Your task to perform on an android device: turn on bluetooth scan Image 0: 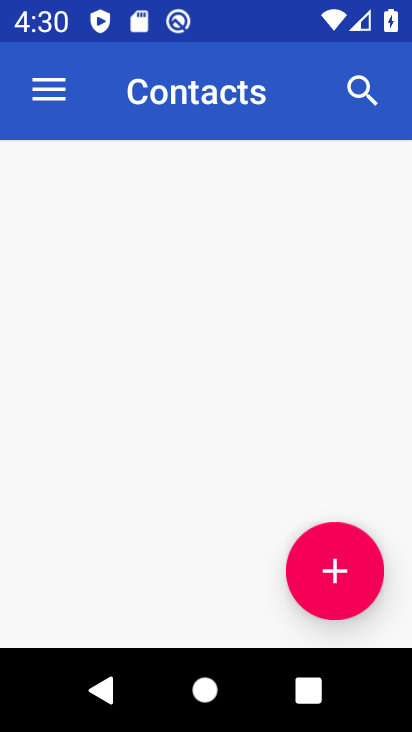
Step 0: press home button
Your task to perform on an android device: turn on bluetooth scan Image 1: 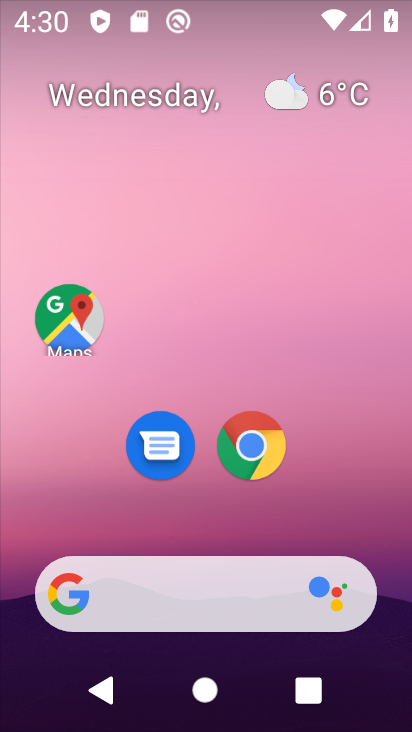
Step 1: drag from (366, 487) to (352, 44)
Your task to perform on an android device: turn on bluetooth scan Image 2: 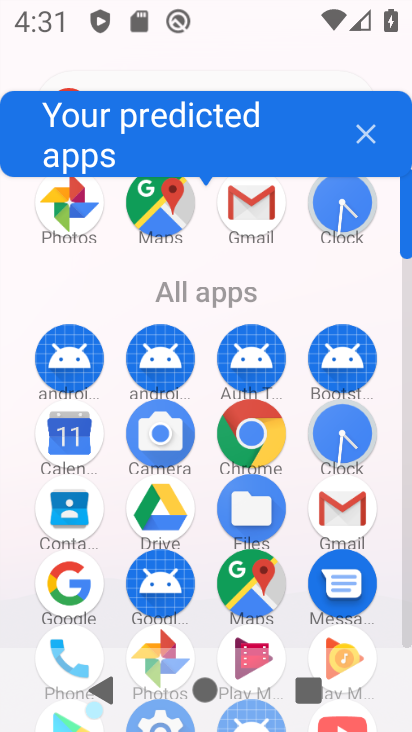
Step 2: drag from (400, 582) to (403, 217)
Your task to perform on an android device: turn on bluetooth scan Image 3: 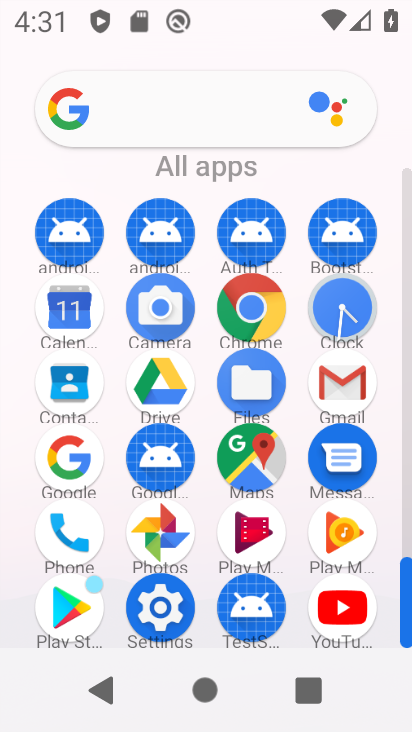
Step 3: click (151, 610)
Your task to perform on an android device: turn on bluetooth scan Image 4: 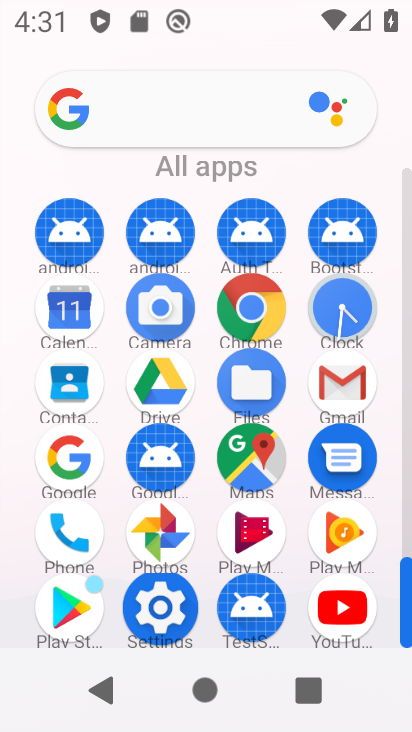
Step 4: click (150, 598)
Your task to perform on an android device: turn on bluetooth scan Image 5: 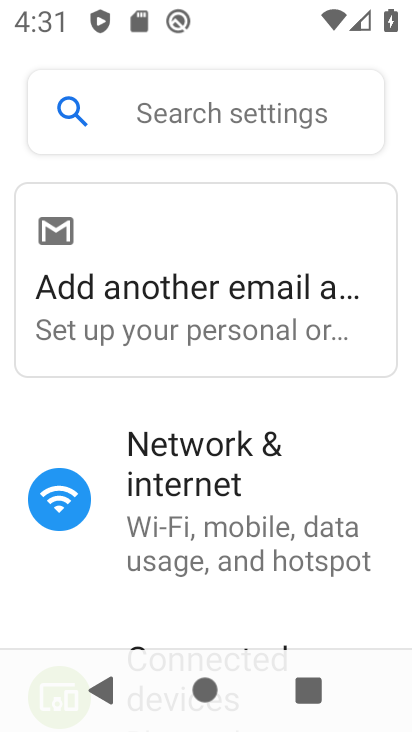
Step 5: drag from (176, 541) to (197, 134)
Your task to perform on an android device: turn on bluetooth scan Image 6: 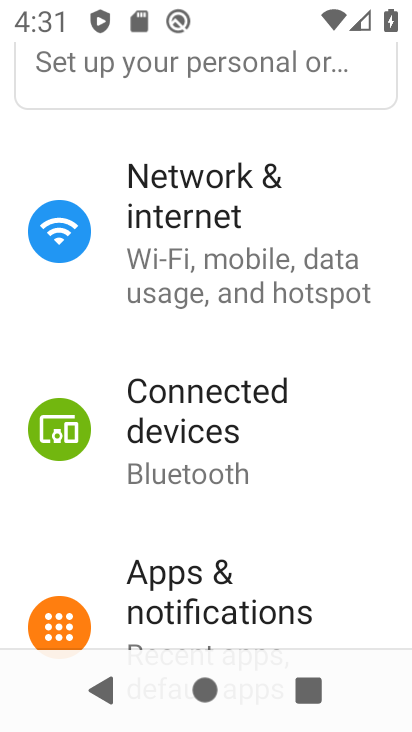
Step 6: drag from (247, 581) to (274, 168)
Your task to perform on an android device: turn on bluetooth scan Image 7: 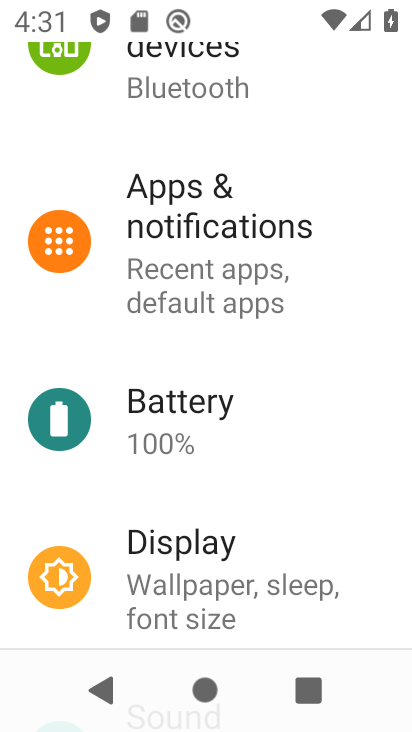
Step 7: drag from (256, 582) to (304, 207)
Your task to perform on an android device: turn on bluetooth scan Image 8: 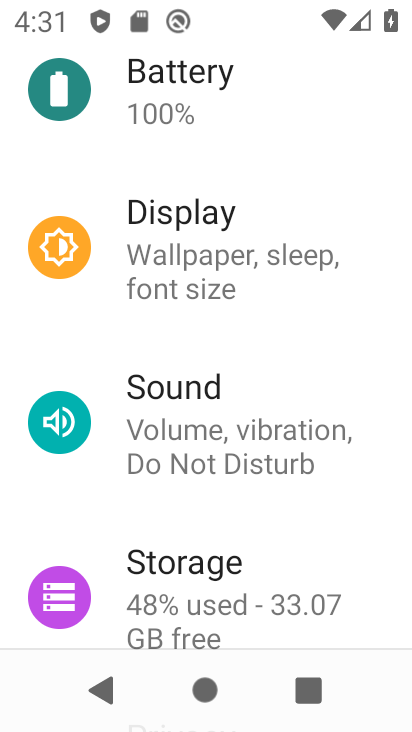
Step 8: drag from (291, 455) to (295, 89)
Your task to perform on an android device: turn on bluetooth scan Image 9: 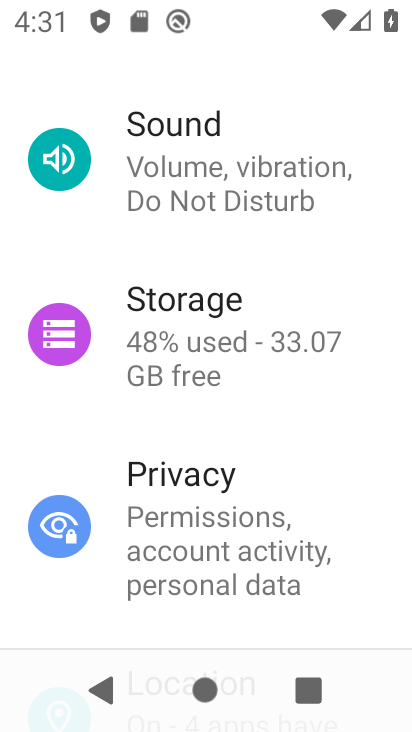
Step 9: drag from (231, 572) to (287, 94)
Your task to perform on an android device: turn on bluetooth scan Image 10: 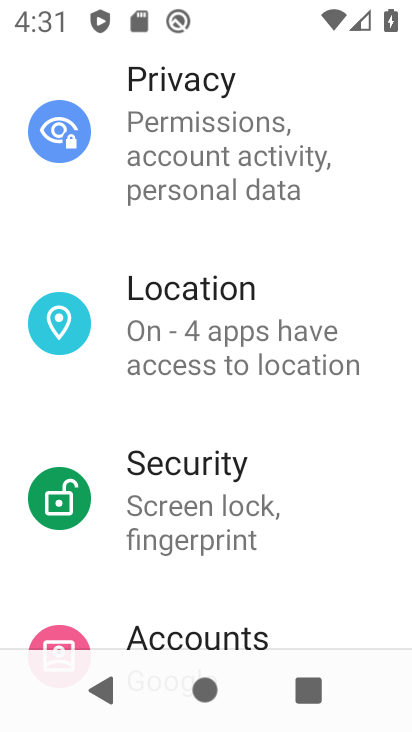
Step 10: click (225, 312)
Your task to perform on an android device: turn on bluetooth scan Image 11: 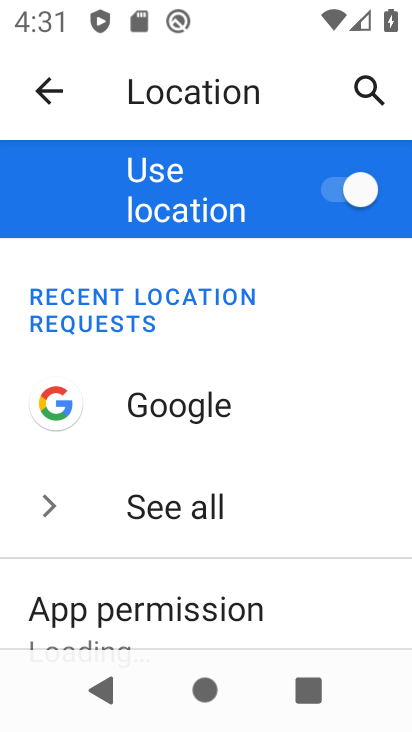
Step 11: drag from (206, 581) to (183, 219)
Your task to perform on an android device: turn on bluetooth scan Image 12: 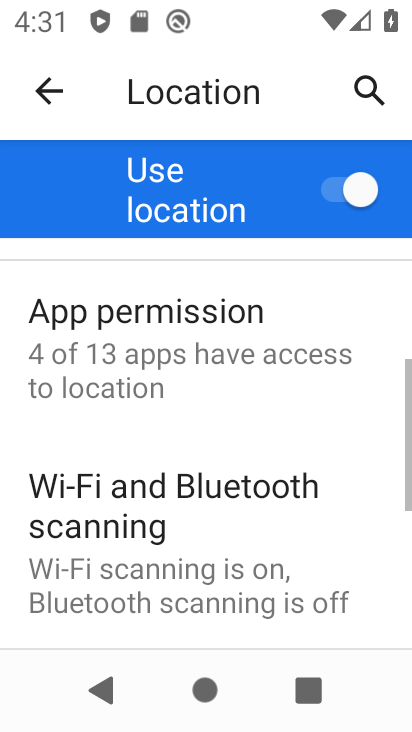
Step 12: drag from (244, 566) to (327, 253)
Your task to perform on an android device: turn on bluetooth scan Image 13: 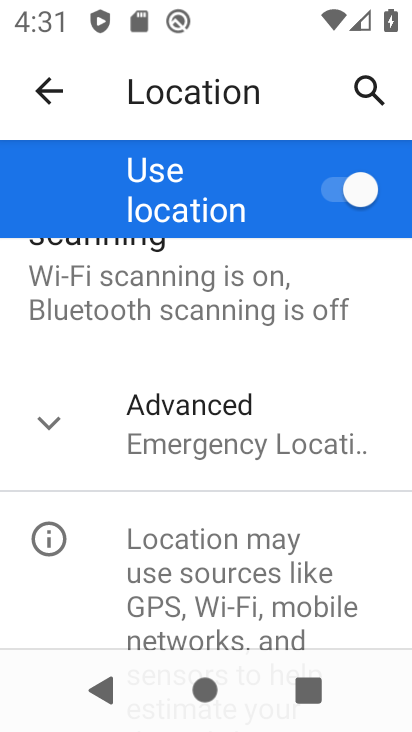
Step 13: drag from (290, 549) to (366, 216)
Your task to perform on an android device: turn on bluetooth scan Image 14: 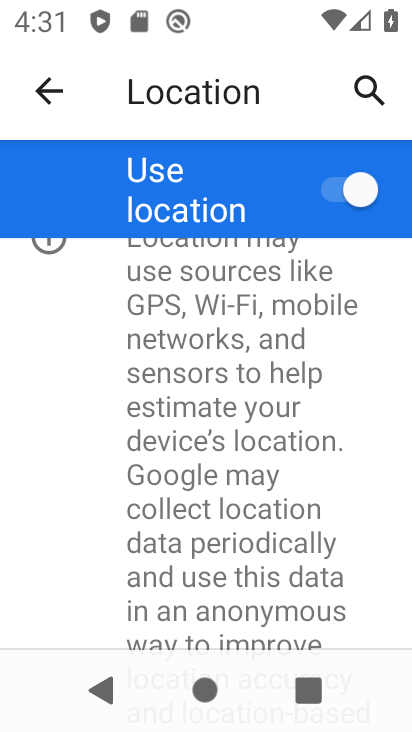
Step 14: drag from (366, 222) to (266, 688)
Your task to perform on an android device: turn on bluetooth scan Image 15: 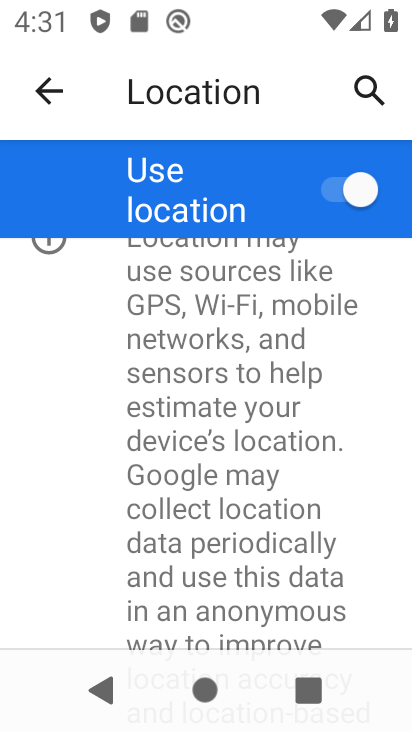
Step 15: drag from (317, 307) to (245, 642)
Your task to perform on an android device: turn on bluetooth scan Image 16: 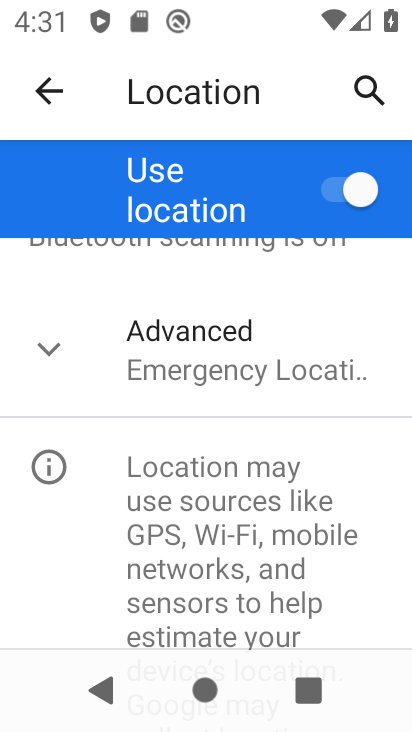
Step 16: drag from (280, 249) to (233, 607)
Your task to perform on an android device: turn on bluetooth scan Image 17: 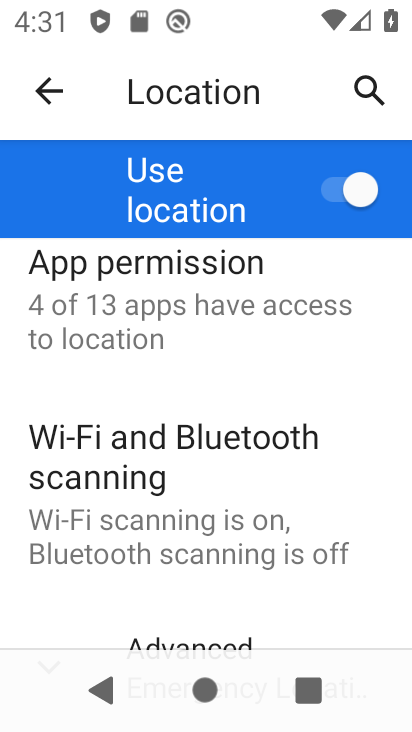
Step 17: click (209, 445)
Your task to perform on an android device: turn on bluetooth scan Image 18: 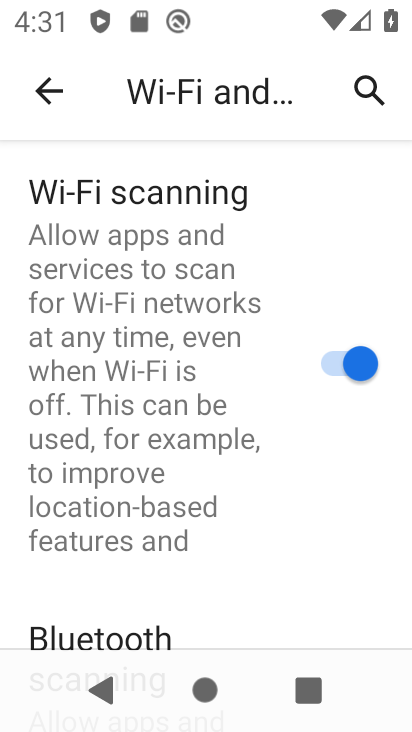
Step 18: drag from (209, 557) to (239, 117)
Your task to perform on an android device: turn on bluetooth scan Image 19: 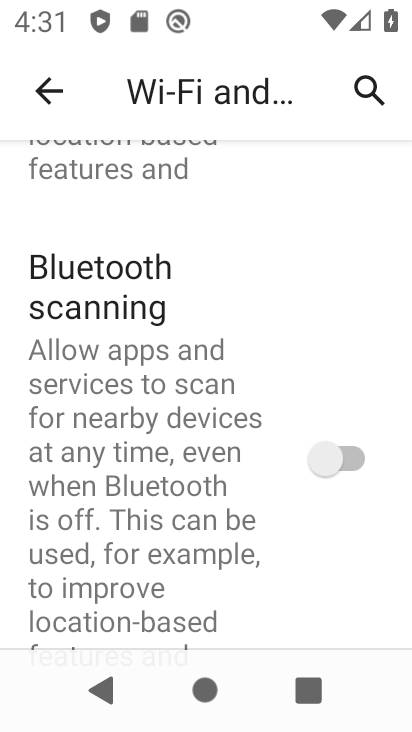
Step 19: click (341, 443)
Your task to perform on an android device: turn on bluetooth scan Image 20: 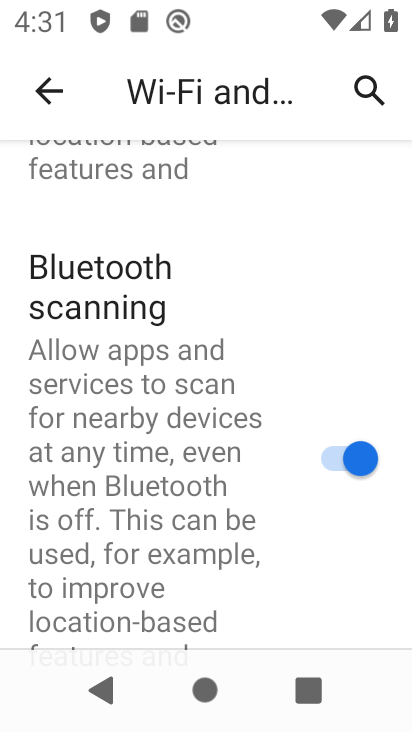
Step 20: task complete